Your task to perform on an android device: Go to CNN.com Image 0: 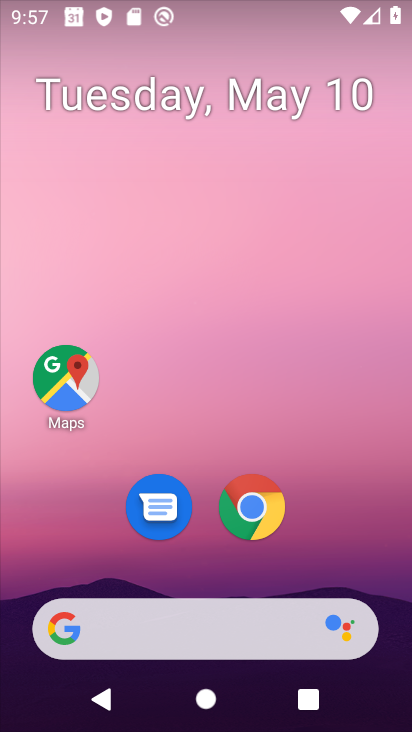
Step 0: click (256, 513)
Your task to perform on an android device: Go to CNN.com Image 1: 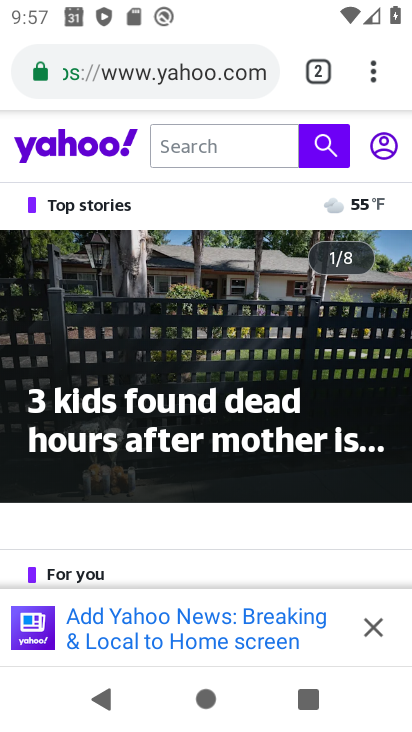
Step 1: click (320, 63)
Your task to perform on an android device: Go to CNN.com Image 2: 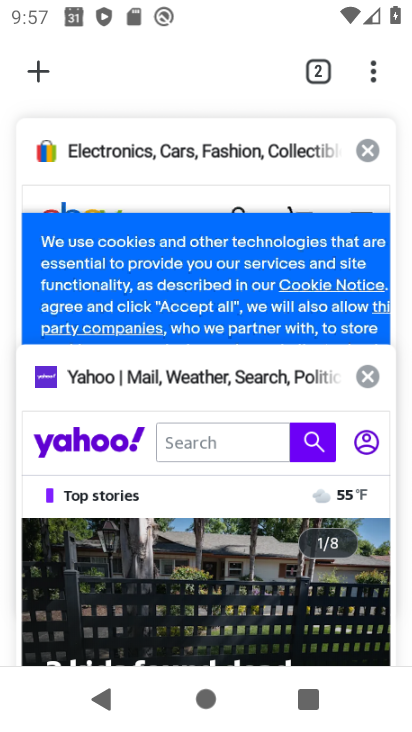
Step 2: click (37, 64)
Your task to perform on an android device: Go to CNN.com Image 3: 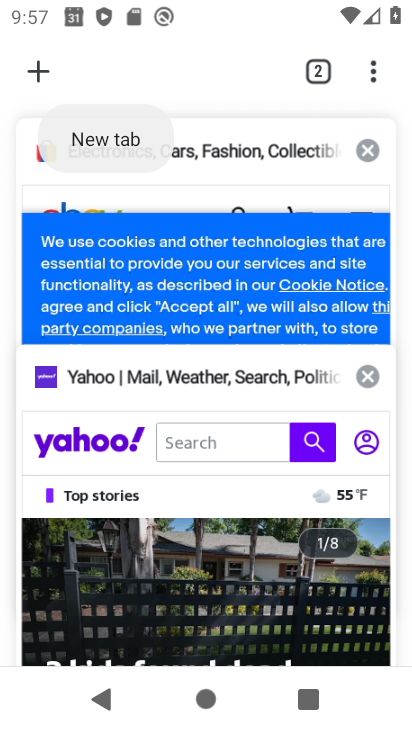
Step 3: click (36, 63)
Your task to perform on an android device: Go to CNN.com Image 4: 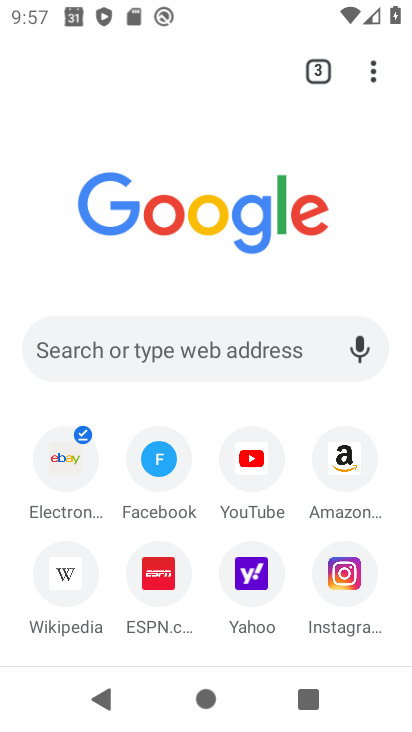
Step 4: click (146, 345)
Your task to perform on an android device: Go to CNN.com Image 5: 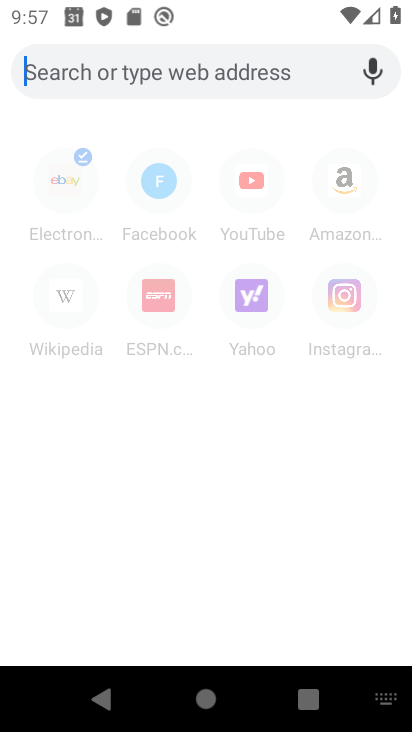
Step 5: type "cnn"
Your task to perform on an android device: Go to CNN.com Image 6: 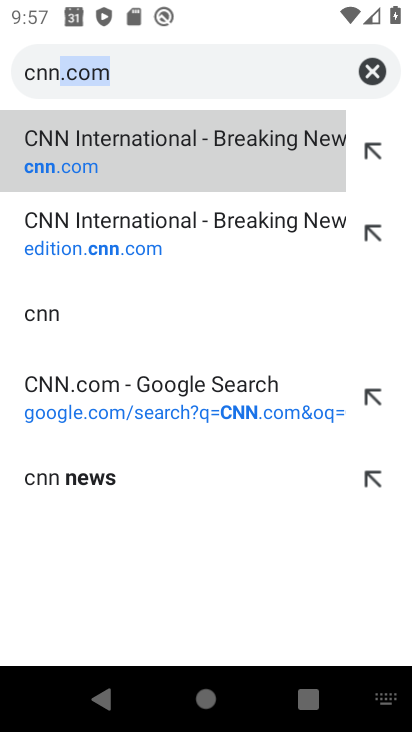
Step 6: click (122, 167)
Your task to perform on an android device: Go to CNN.com Image 7: 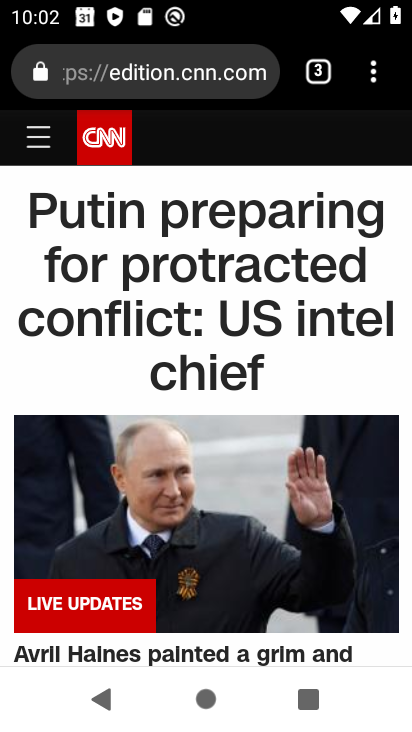
Step 7: task complete